Your task to perform on an android device: Show me the alarms in the clock app Image 0: 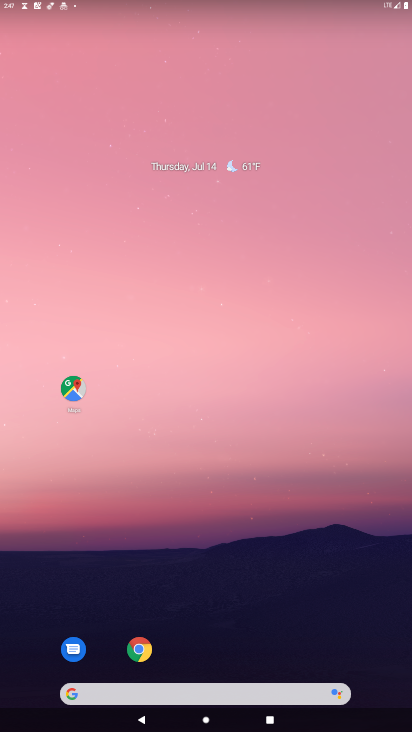
Step 0: drag from (239, 645) to (270, 8)
Your task to perform on an android device: Show me the alarms in the clock app Image 1: 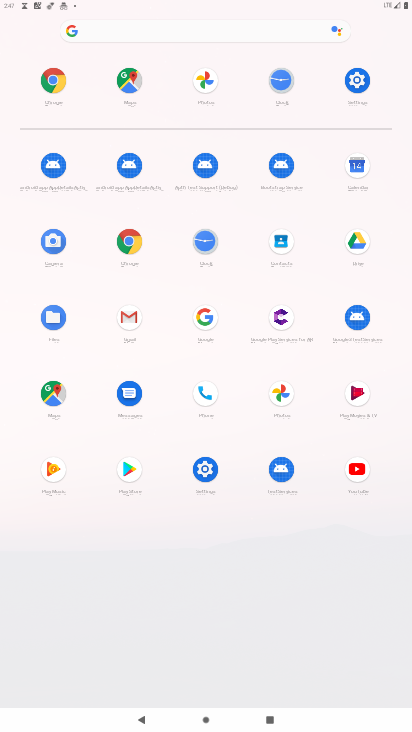
Step 1: click (202, 232)
Your task to perform on an android device: Show me the alarms in the clock app Image 2: 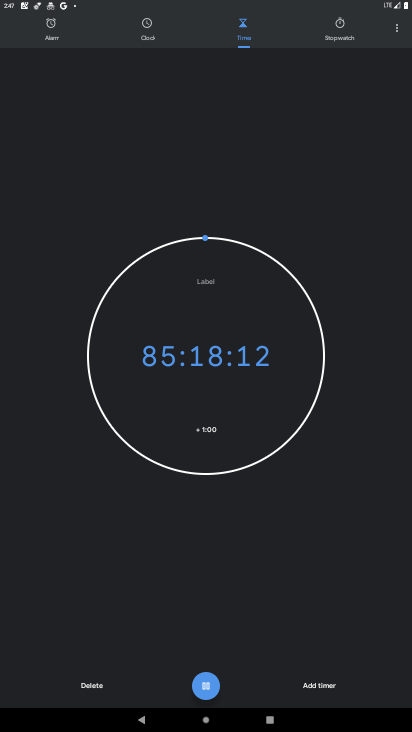
Step 2: click (59, 20)
Your task to perform on an android device: Show me the alarms in the clock app Image 3: 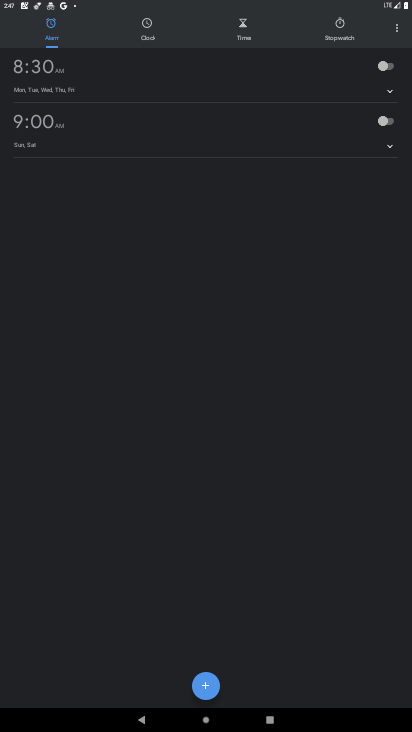
Step 3: task complete